Your task to perform on an android device: Go to display settings Image 0: 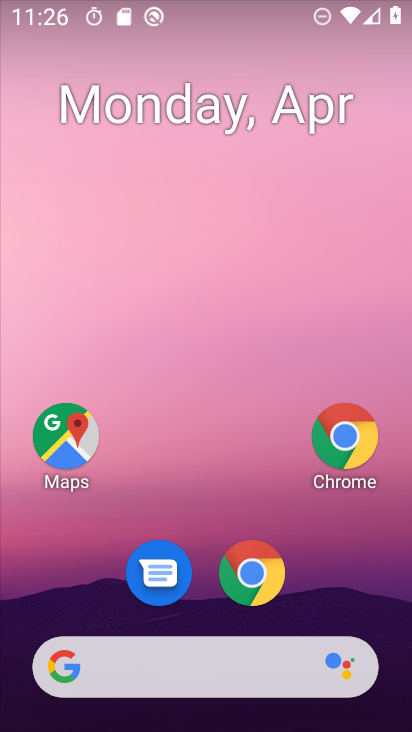
Step 0: drag from (334, 435) to (283, 84)
Your task to perform on an android device: Go to display settings Image 1: 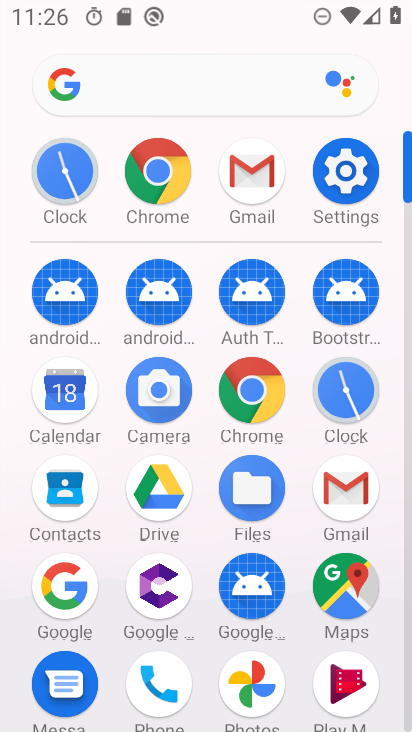
Step 1: click (354, 174)
Your task to perform on an android device: Go to display settings Image 2: 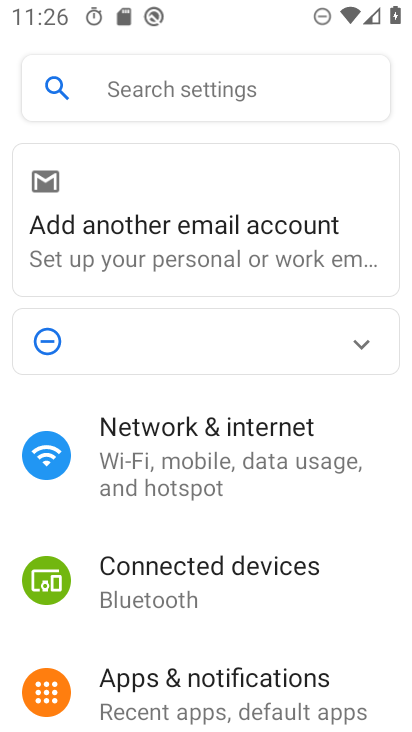
Step 2: drag from (240, 569) to (258, 191)
Your task to perform on an android device: Go to display settings Image 3: 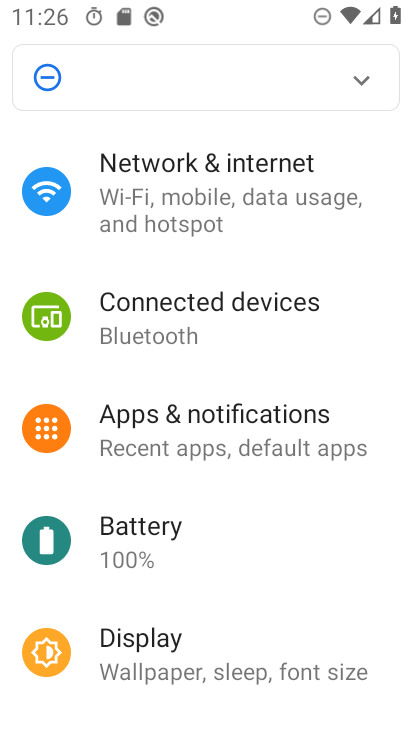
Step 3: drag from (187, 592) to (239, 222)
Your task to perform on an android device: Go to display settings Image 4: 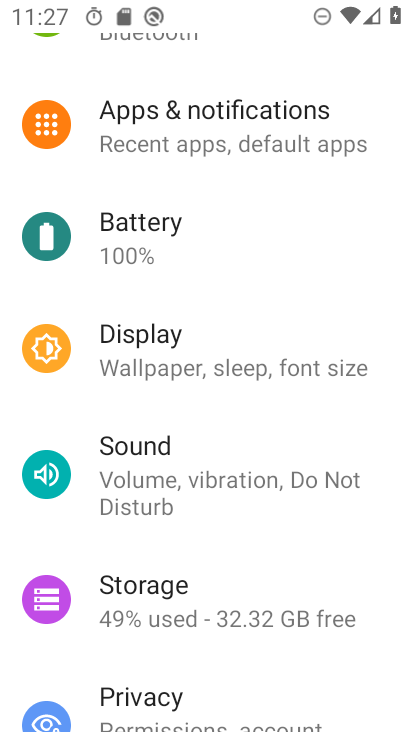
Step 4: click (153, 347)
Your task to perform on an android device: Go to display settings Image 5: 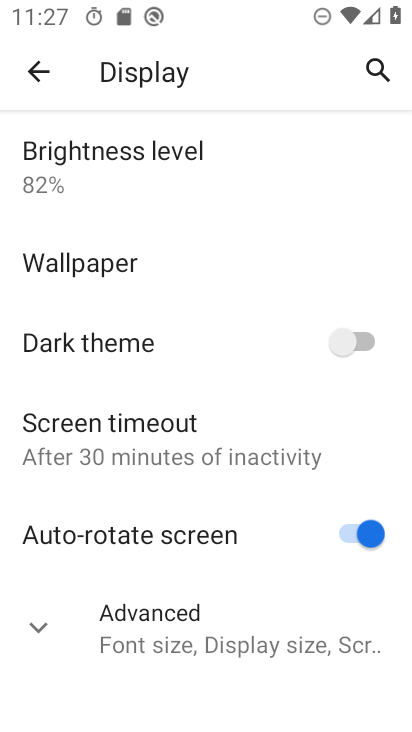
Step 5: drag from (289, 460) to (294, 202)
Your task to perform on an android device: Go to display settings Image 6: 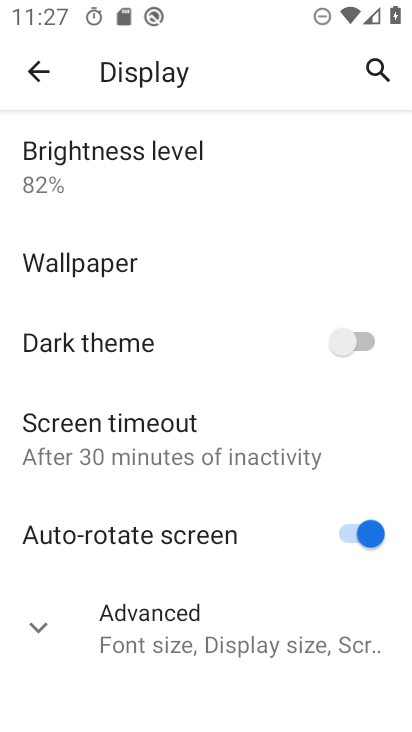
Step 6: drag from (239, 496) to (246, 611)
Your task to perform on an android device: Go to display settings Image 7: 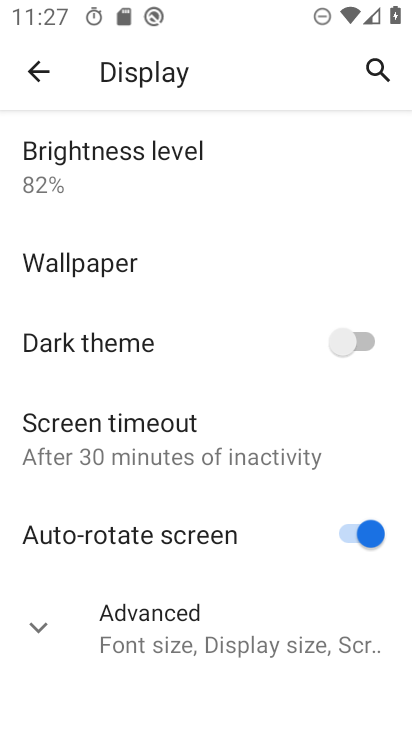
Step 7: drag from (204, 242) to (202, 522)
Your task to perform on an android device: Go to display settings Image 8: 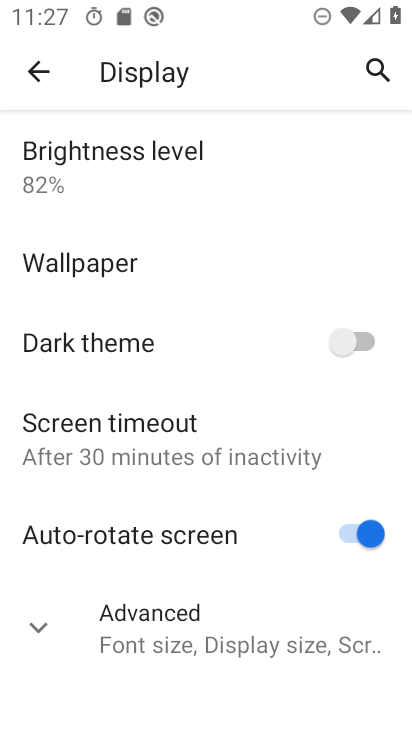
Step 8: drag from (148, 638) to (245, 254)
Your task to perform on an android device: Go to display settings Image 9: 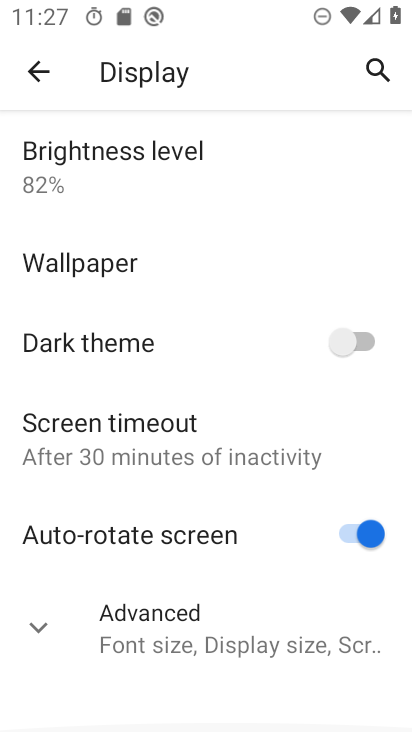
Step 9: drag from (104, 198) to (154, 523)
Your task to perform on an android device: Go to display settings Image 10: 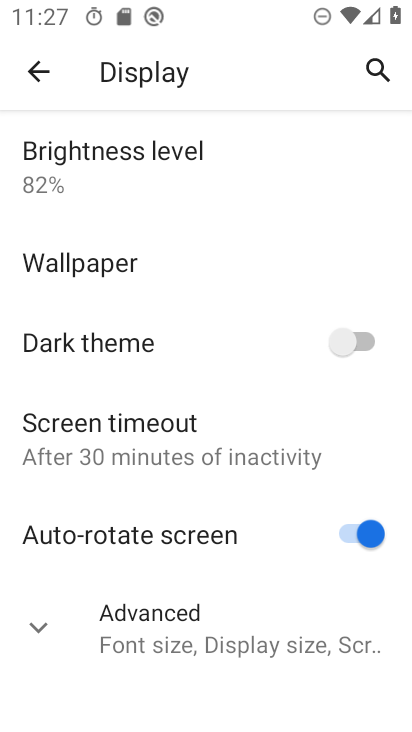
Step 10: click (199, 648)
Your task to perform on an android device: Go to display settings Image 11: 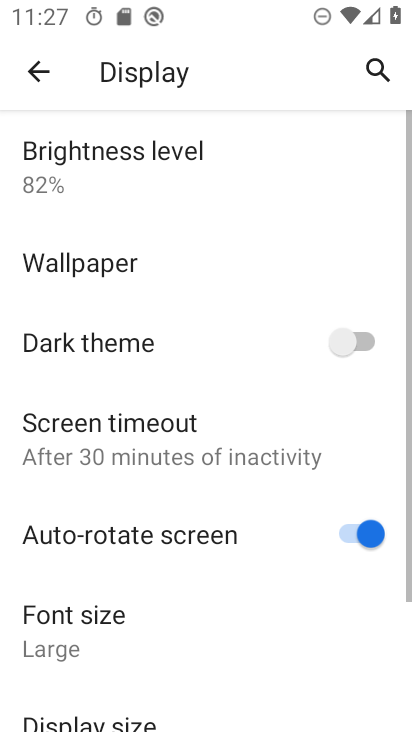
Step 11: task complete